Your task to perform on an android device: change timer sound Image 0: 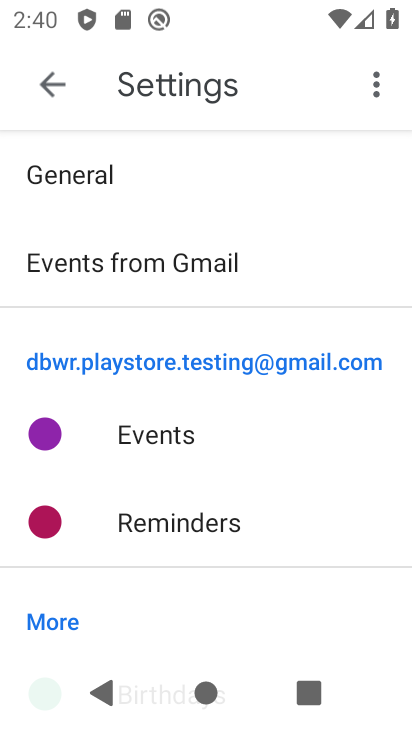
Step 0: press home button
Your task to perform on an android device: change timer sound Image 1: 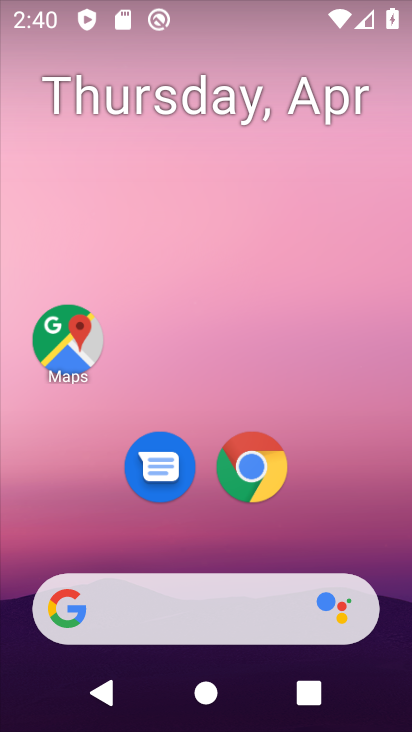
Step 1: drag from (352, 514) to (317, 308)
Your task to perform on an android device: change timer sound Image 2: 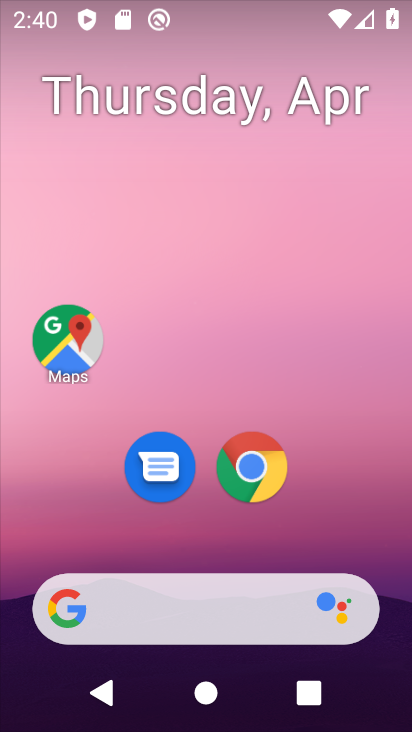
Step 2: drag from (321, 453) to (292, 149)
Your task to perform on an android device: change timer sound Image 3: 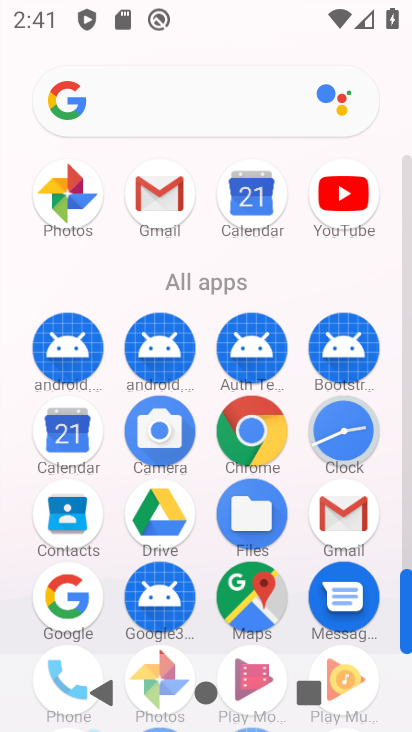
Step 3: click (345, 436)
Your task to perform on an android device: change timer sound Image 4: 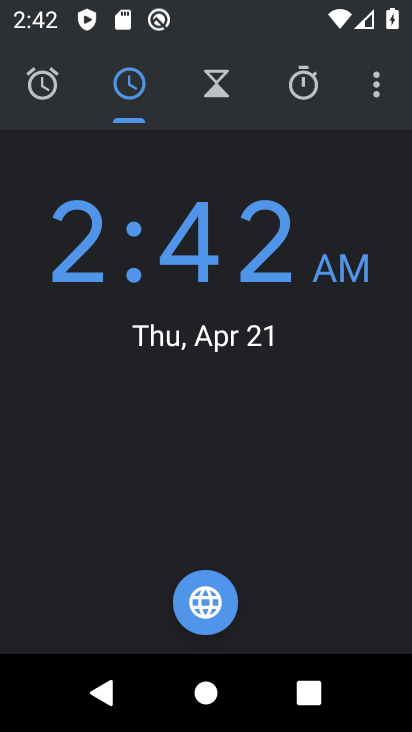
Step 4: click (379, 91)
Your task to perform on an android device: change timer sound Image 5: 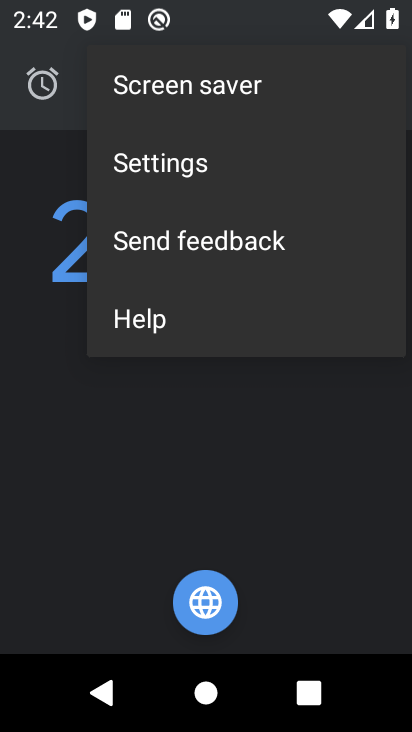
Step 5: click (265, 166)
Your task to perform on an android device: change timer sound Image 6: 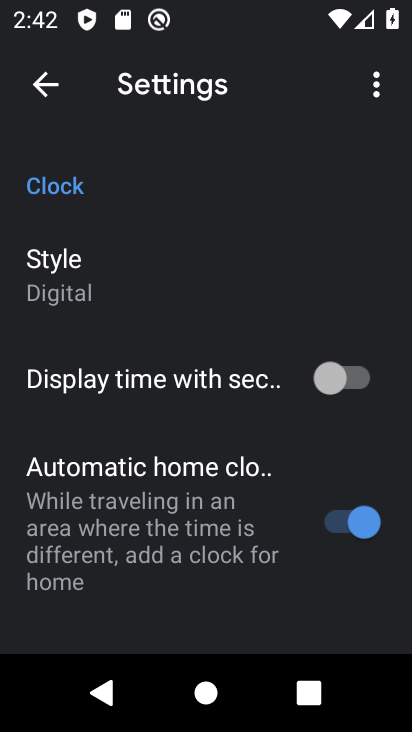
Step 6: drag from (226, 594) to (212, 205)
Your task to perform on an android device: change timer sound Image 7: 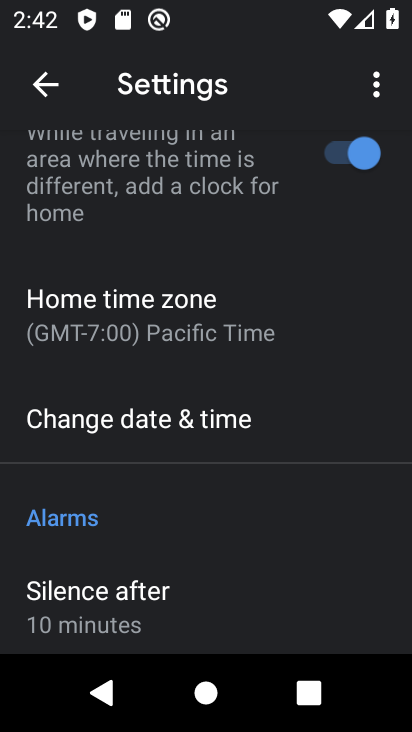
Step 7: drag from (242, 534) to (227, 148)
Your task to perform on an android device: change timer sound Image 8: 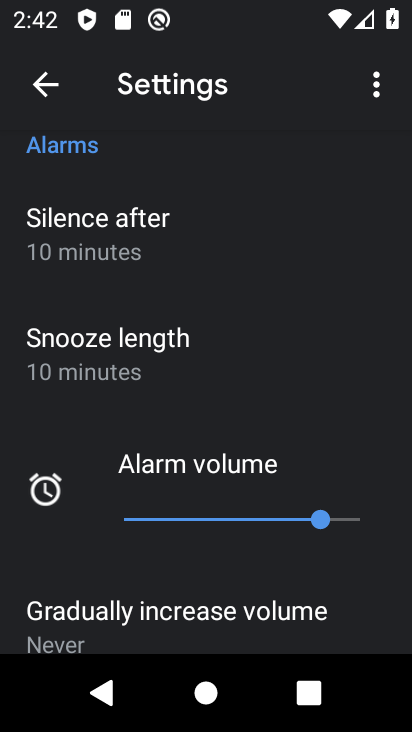
Step 8: drag from (236, 405) to (228, 191)
Your task to perform on an android device: change timer sound Image 9: 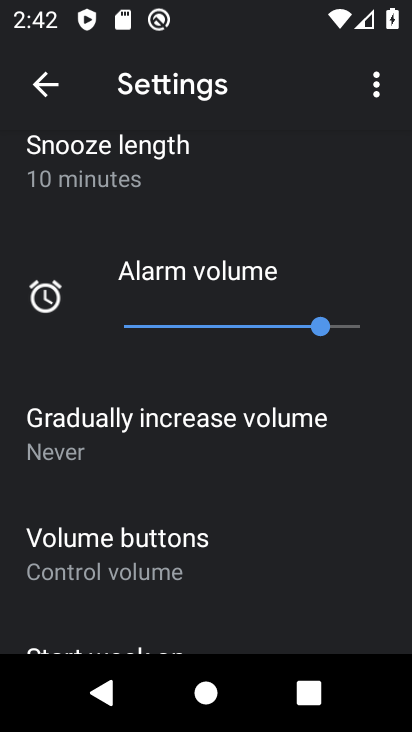
Step 9: drag from (231, 493) to (235, 157)
Your task to perform on an android device: change timer sound Image 10: 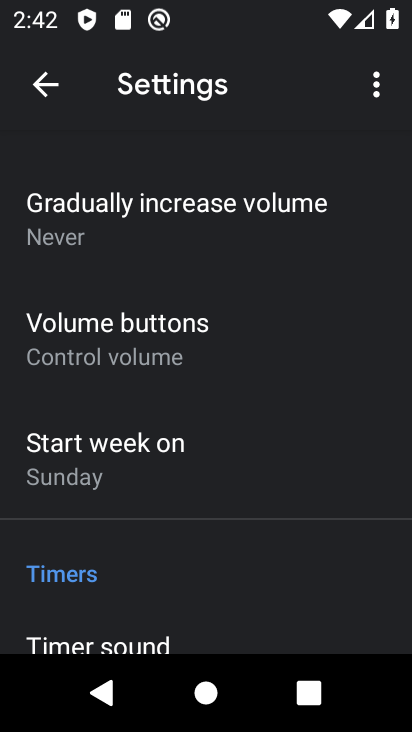
Step 10: drag from (241, 569) to (240, 157)
Your task to perform on an android device: change timer sound Image 11: 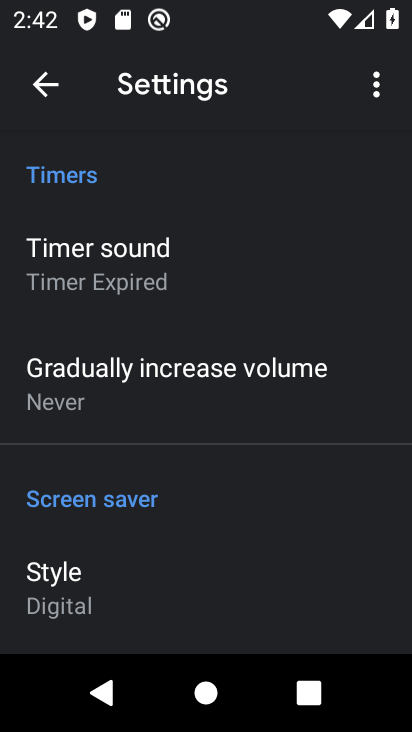
Step 11: click (188, 269)
Your task to perform on an android device: change timer sound Image 12: 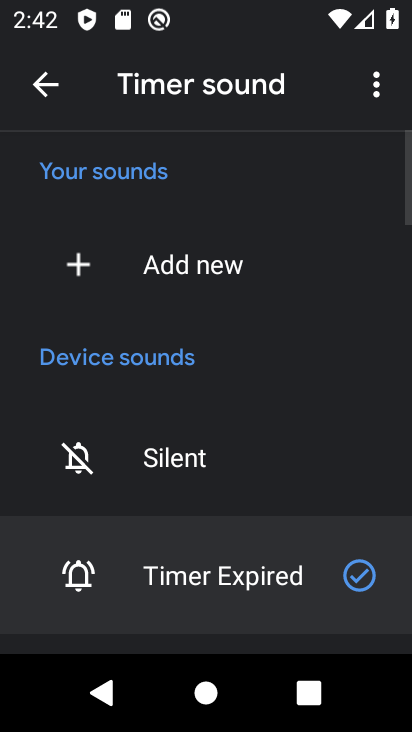
Step 12: drag from (243, 455) to (256, 176)
Your task to perform on an android device: change timer sound Image 13: 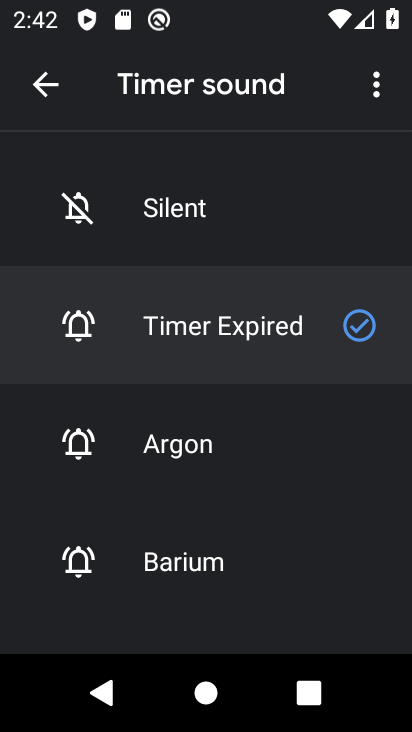
Step 13: click (196, 442)
Your task to perform on an android device: change timer sound Image 14: 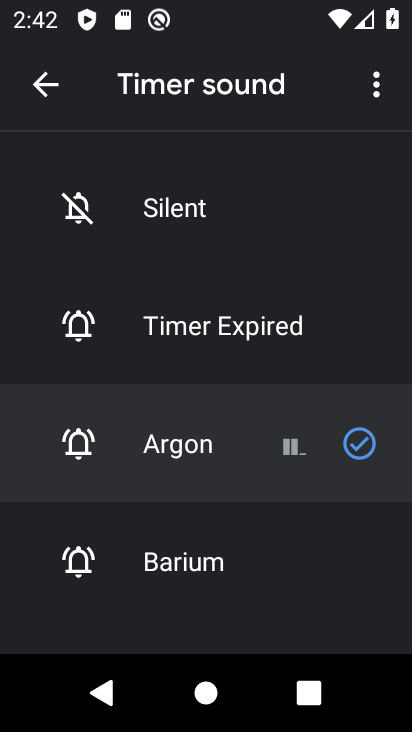
Step 14: task complete